Your task to perform on an android device: delete browsing data in the chrome app Image 0: 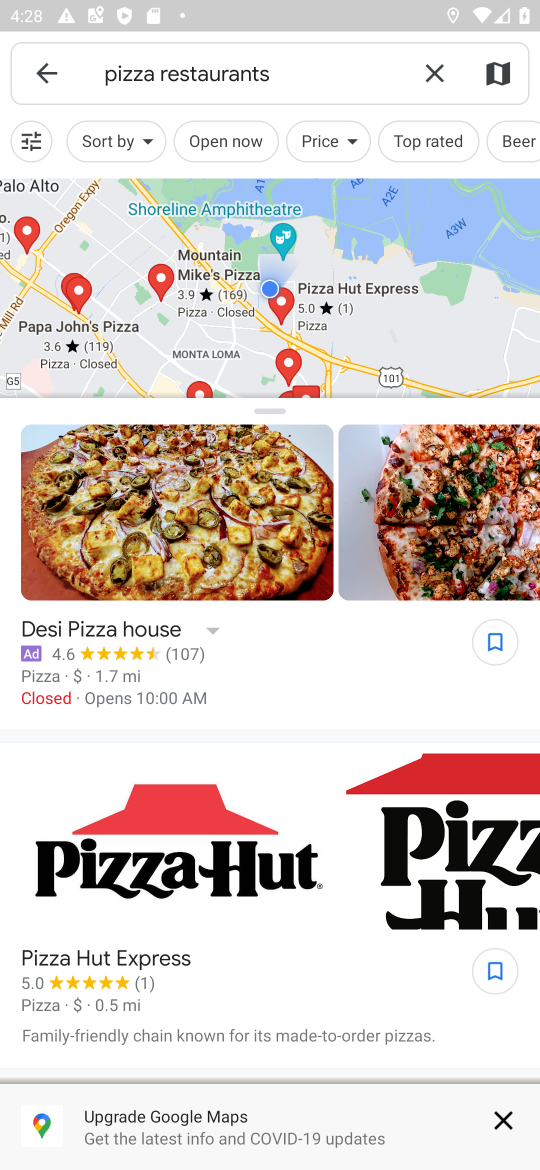
Step 0: press home button
Your task to perform on an android device: delete browsing data in the chrome app Image 1: 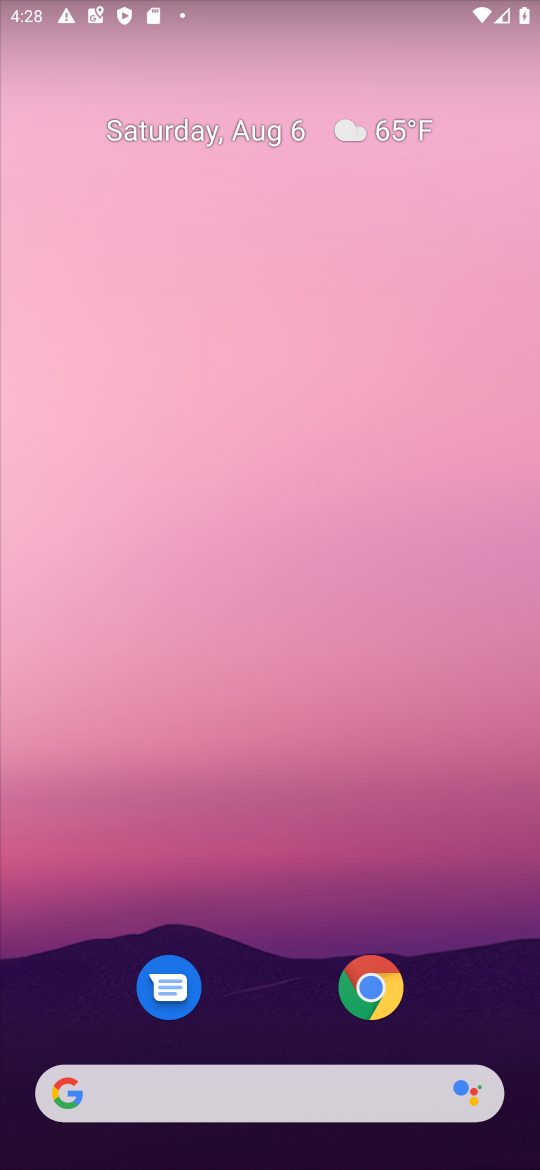
Step 1: drag from (245, 1001) to (300, 146)
Your task to perform on an android device: delete browsing data in the chrome app Image 2: 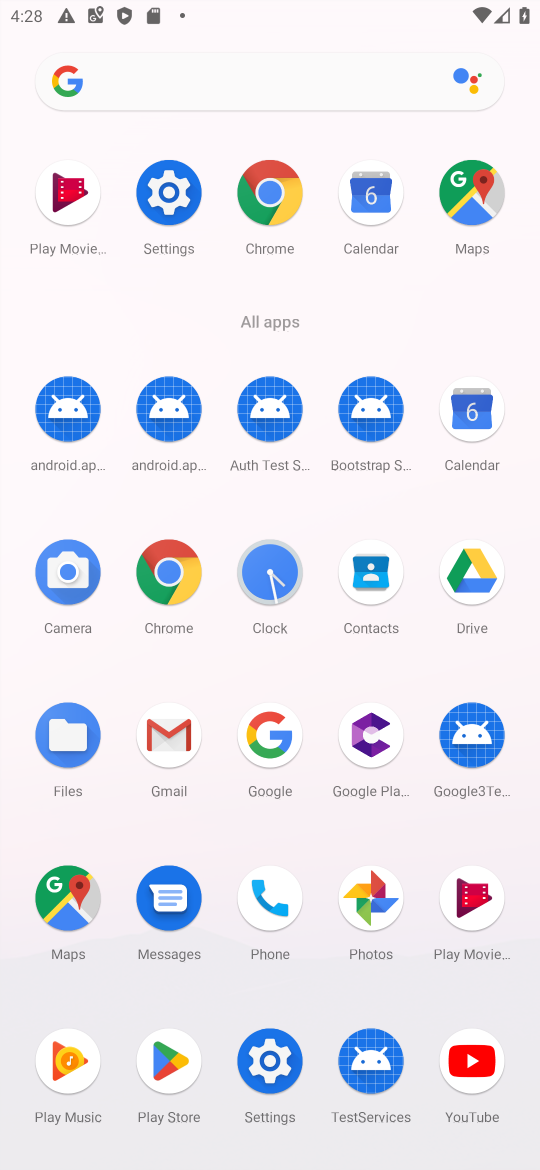
Step 2: click (163, 582)
Your task to perform on an android device: delete browsing data in the chrome app Image 3: 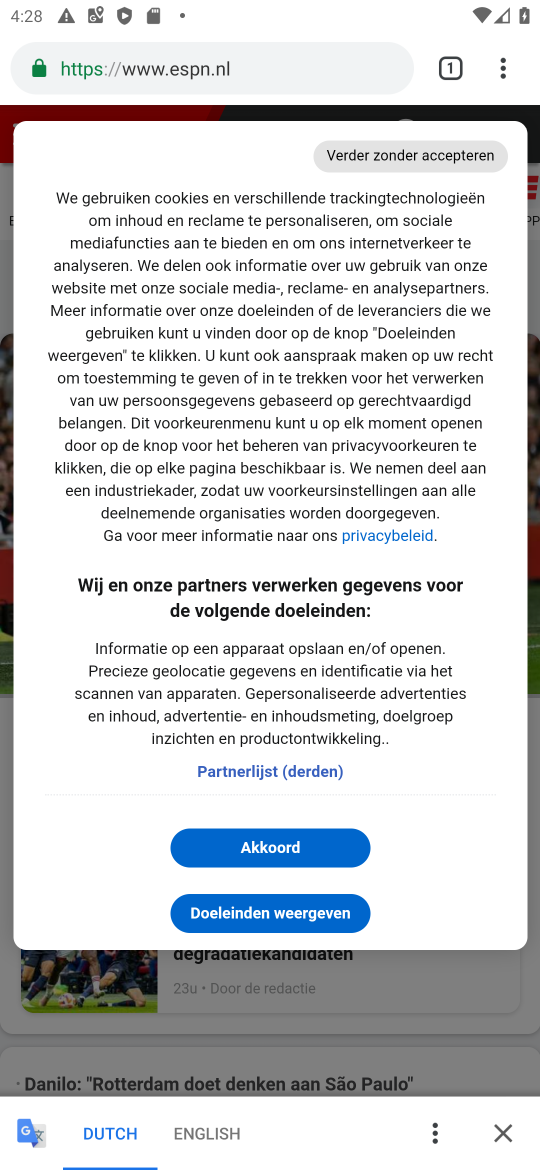
Step 3: click (506, 67)
Your task to perform on an android device: delete browsing data in the chrome app Image 4: 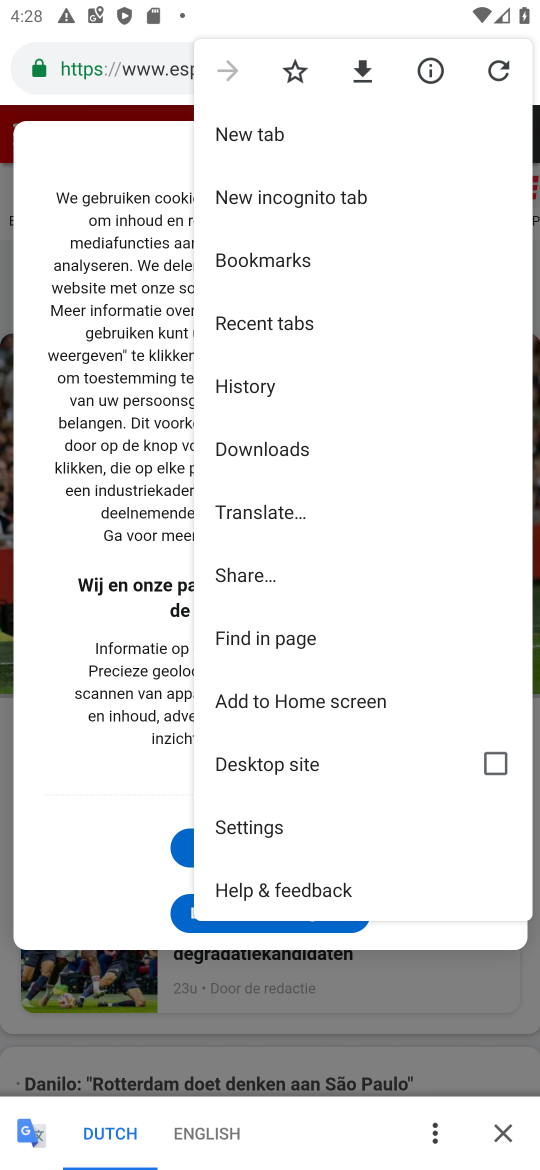
Step 4: click (256, 378)
Your task to perform on an android device: delete browsing data in the chrome app Image 5: 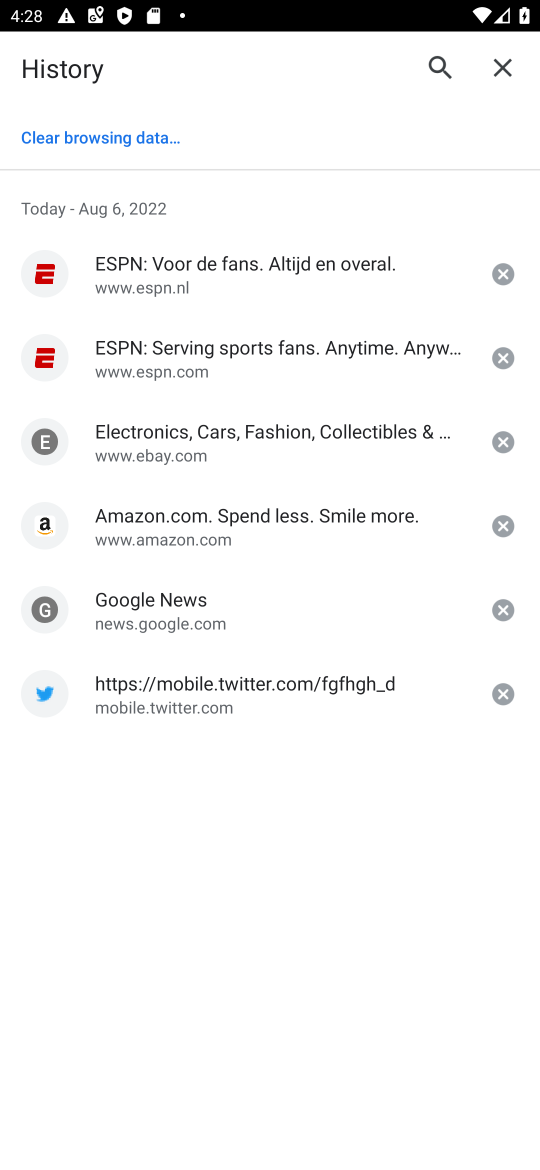
Step 5: click (82, 137)
Your task to perform on an android device: delete browsing data in the chrome app Image 6: 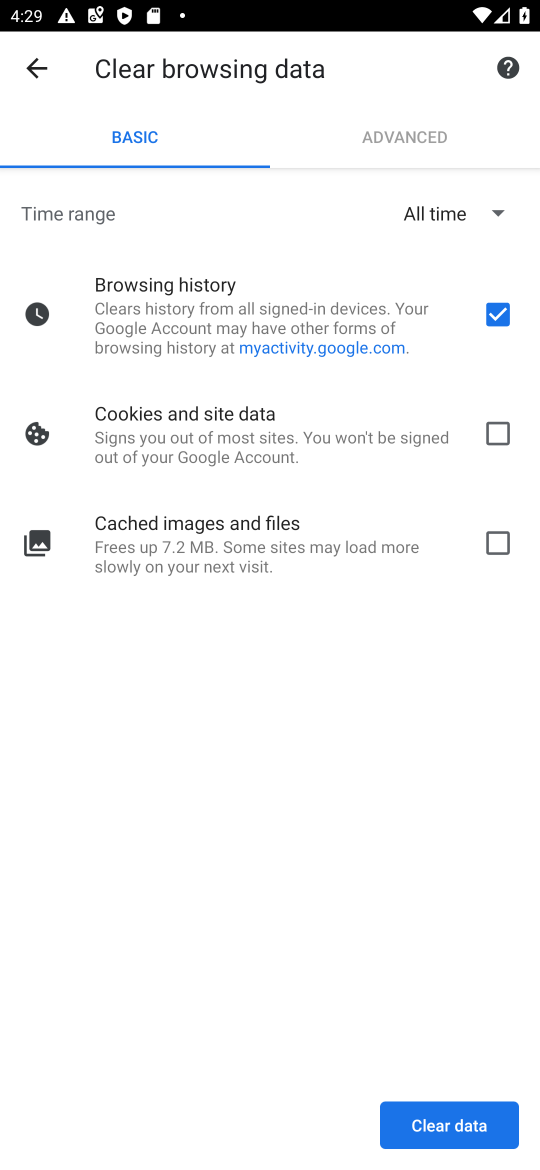
Step 6: click (486, 440)
Your task to perform on an android device: delete browsing data in the chrome app Image 7: 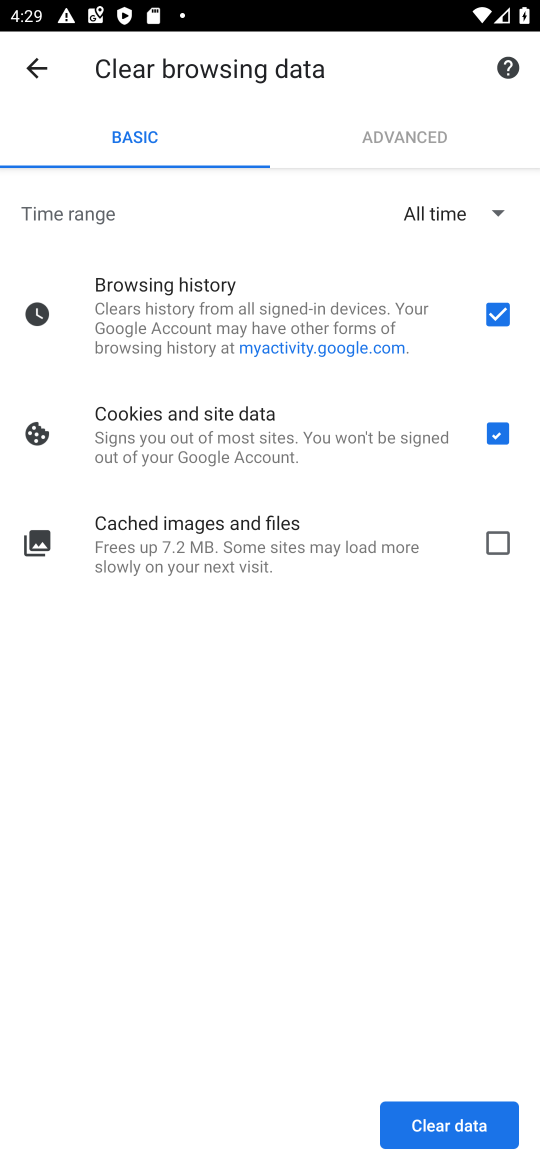
Step 7: click (491, 553)
Your task to perform on an android device: delete browsing data in the chrome app Image 8: 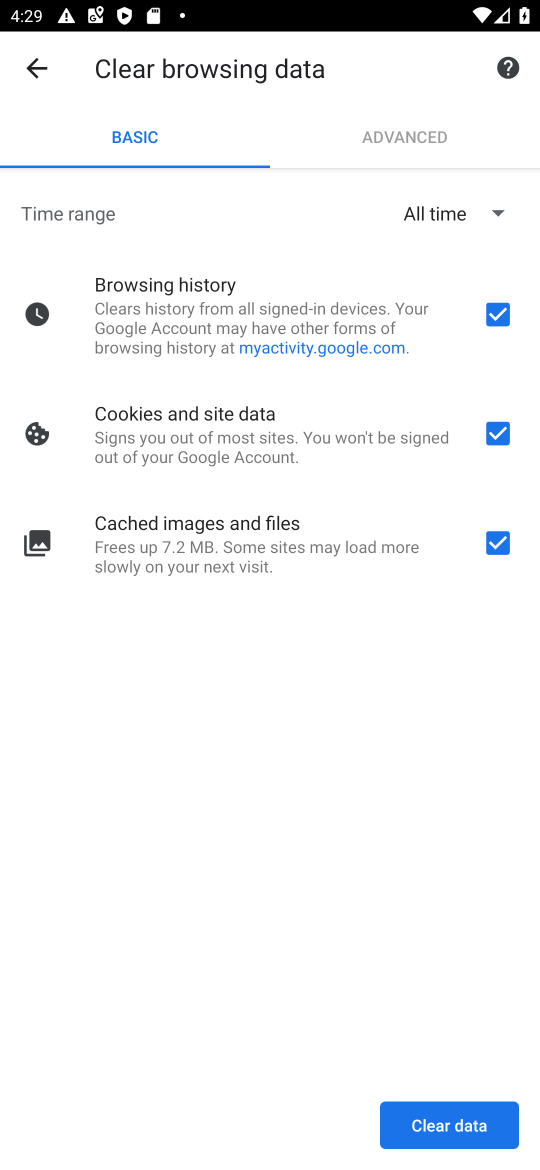
Step 8: click (450, 1135)
Your task to perform on an android device: delete browsing data in the chrome app Image 9: 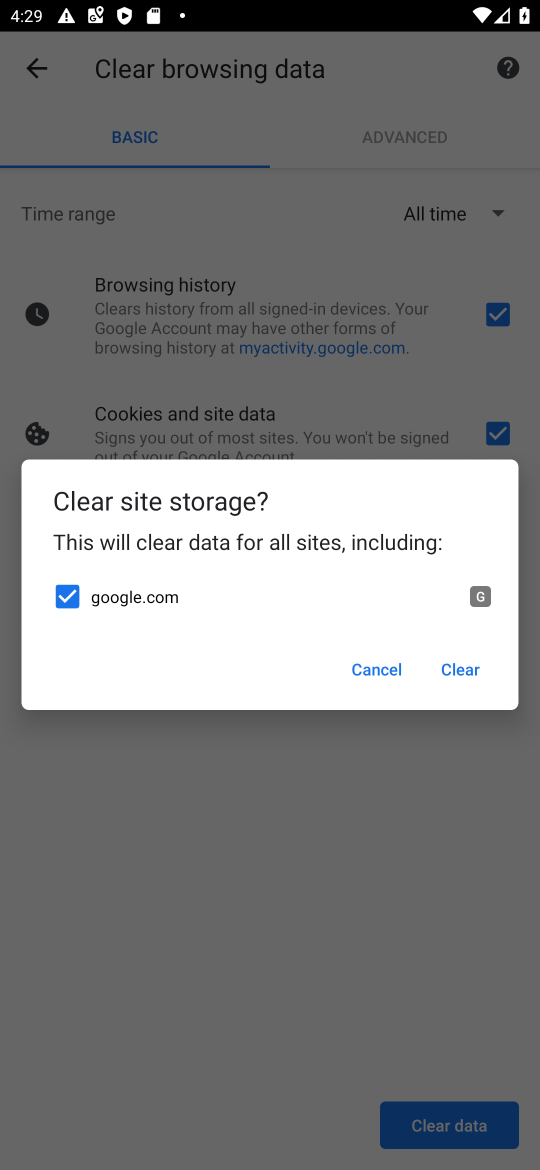
Step 9: click (478, 664)
Your task to perform on an android device: delete browsing data in the chrome app Image 10: 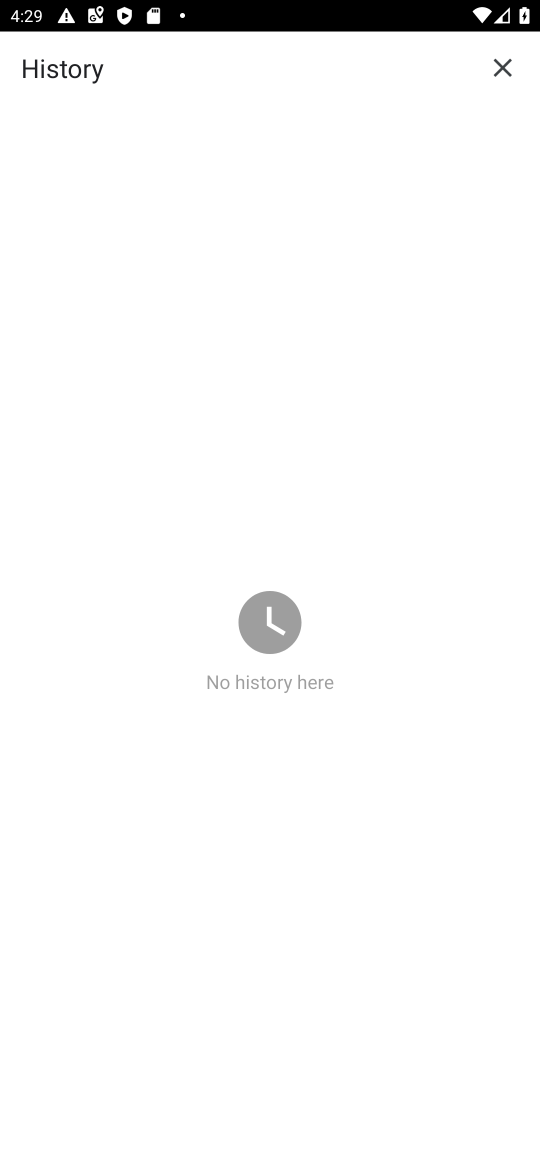
Step 10: task complete